Your task to perform on an android device: Open privacy settings Image 0: 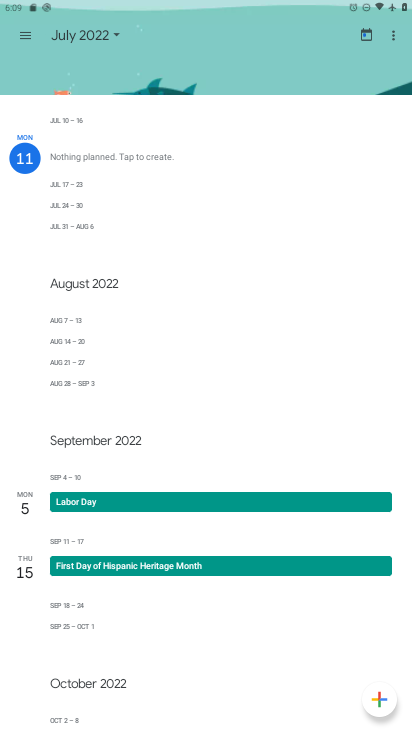
Step 0: press home button
Your task to perform on an android device: Open privacy settings Image 1: 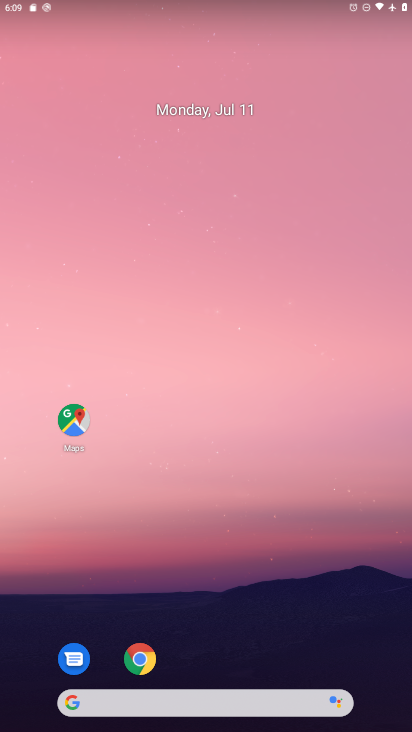
Step 1: drag from (373, 653) to (257, 19)
Your task to perform on an android device: Open privacy settings Image 2: 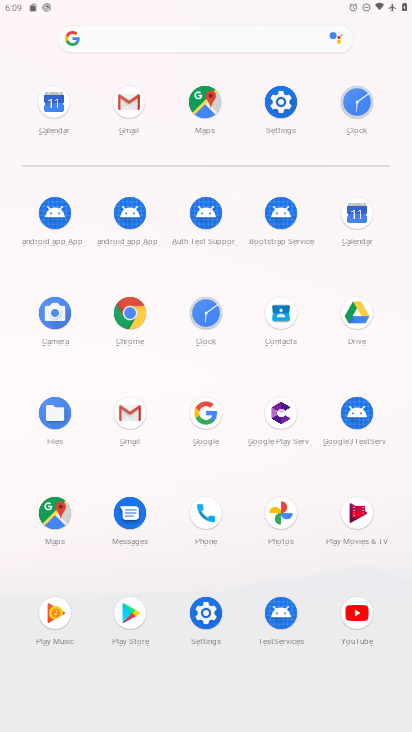
Step 2: click (205, 617)
Your task to perform on an android device: Open privacy settings Image 3: 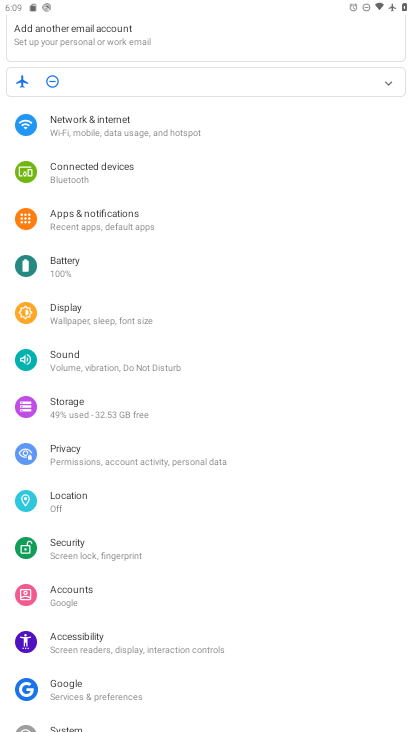
Step 3: click (63, 453)
Your task to perform on an android device: Open privacy settings Image 4: 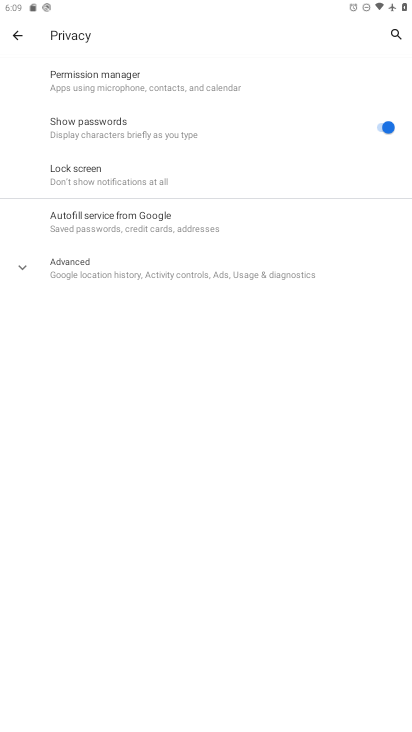
Step 4: click (20, 260)
Your task to perform on an android device: Open privacy settings Image 5: 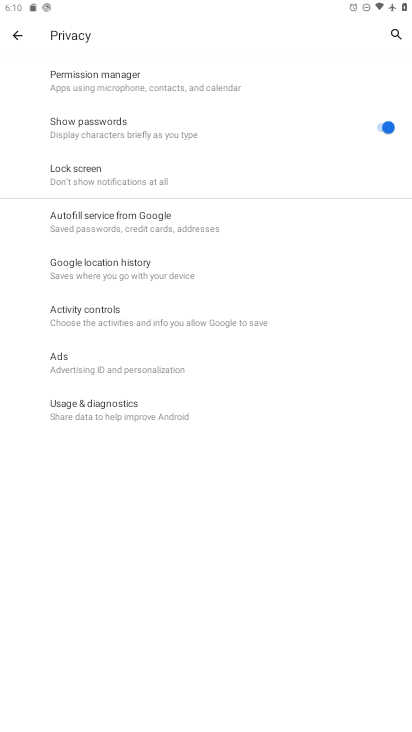
Step 5: task complete